Your task to perform on an android device: read, delete, or share a saved page in the chrome app Image 0: 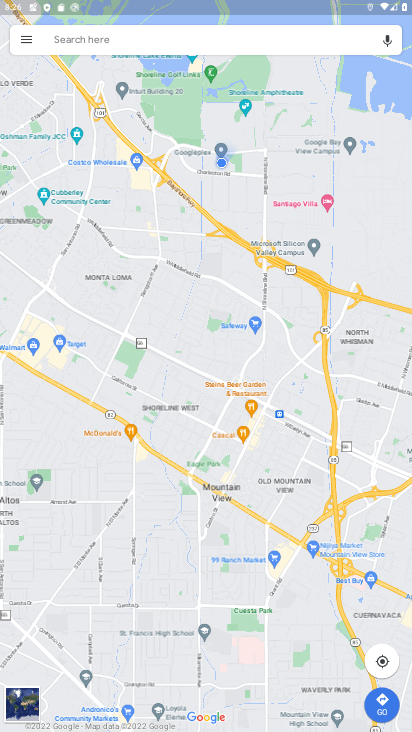
Step 0: press home button
Your task to perform on an android device: read, delete, or share a saved page in the chrome app Image 1: 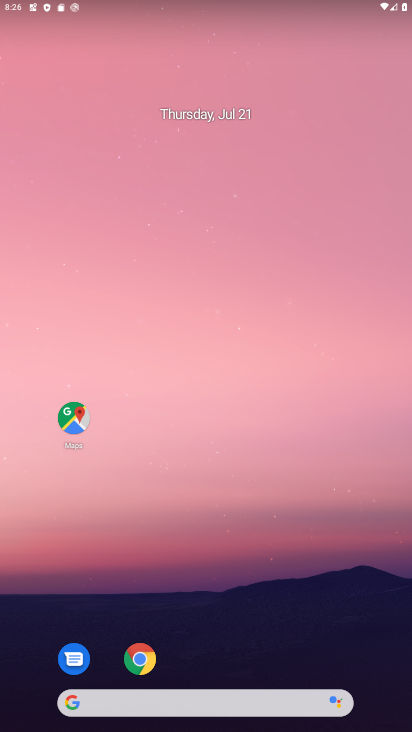
Step 1: click (139, 652)
Your task to perform on an android device: read, delete, or share a saved page in the chrome app Image 2: 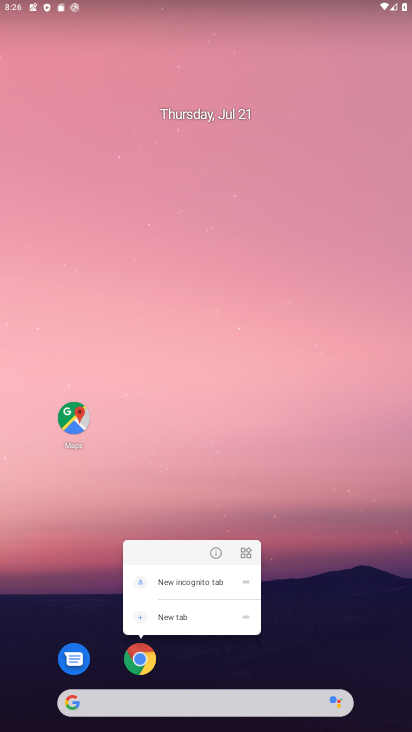
Step 2: click (177, 674)
Your task to perform on an android device: read, delete, or share a saved page in the chrome app Image 3: 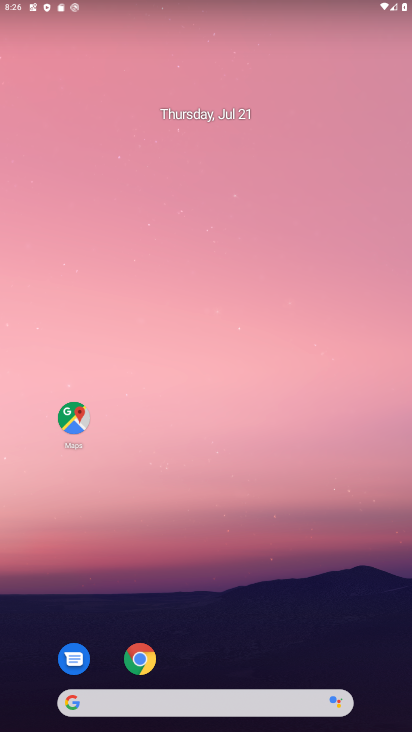
Step 3: click (135, 655)
Your task to perform on an android device: read, delete, or share a saved page in the chrome app Image 4: 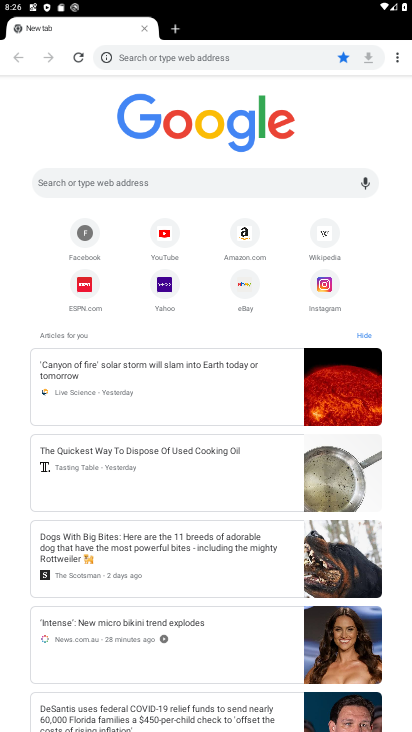
Step 4: click (398, 53)
Your task to perform on an android device: read, delete, or share a saved page in the chrome app Image 5: 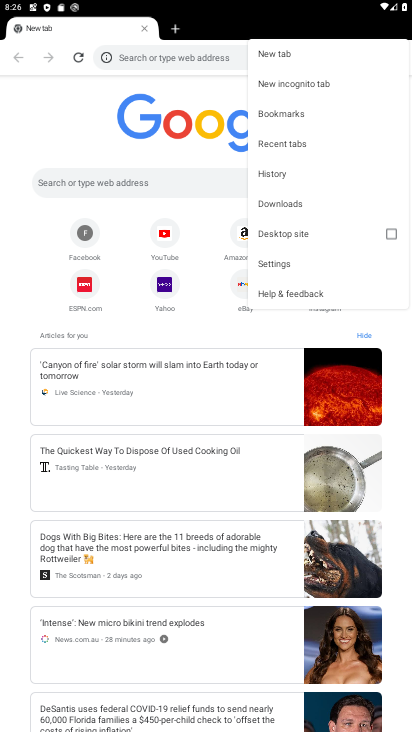
Step 5: click (307, 203)
Your task to perform on an android device: read, delete, or share a saved page in the chrome app Image 6: 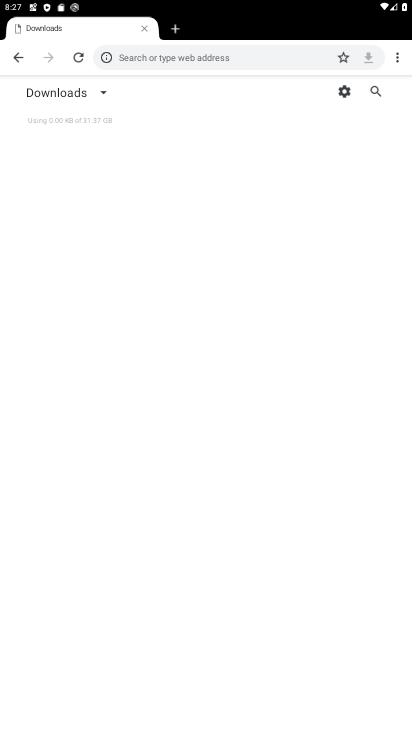
Step 6: task complete